Your task to perform on an android device: Open location settings Image 0: 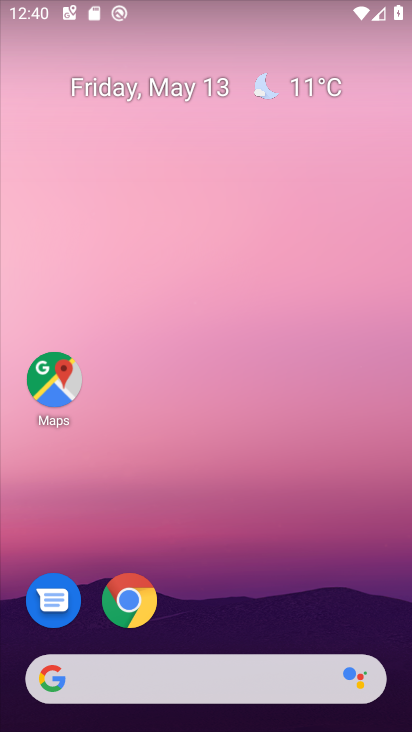
Step 0: drag from (186, 610) to (227, 106)
Your task to perform on an android device: Open location settings Image 1: 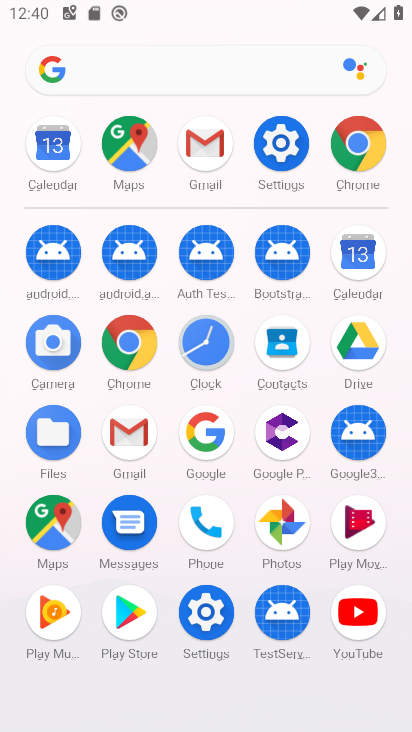
Step 1: click (285, 153)
Your task to perform on an android device: Open location settings Image 2: 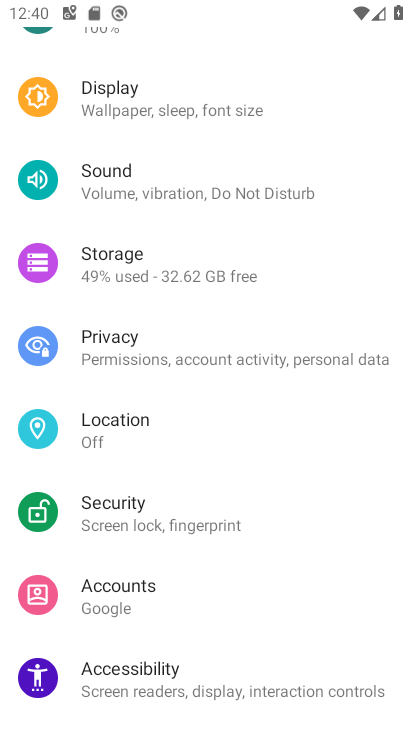
Step 2: click (151, 448)
Your task to perform on an android device: Open location settings Image 3: 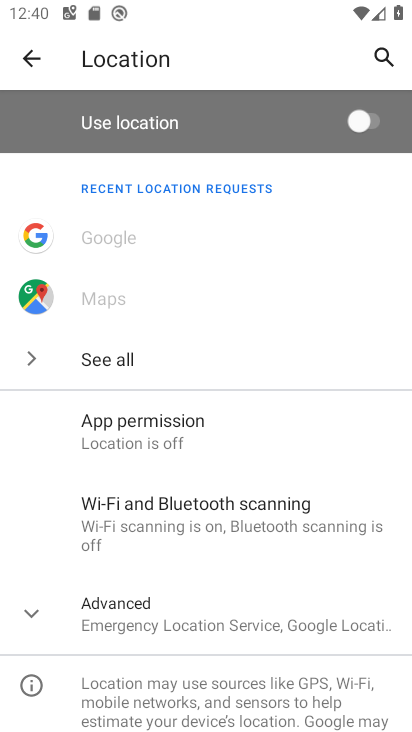
Step 3: task complete